Your task to perform on an android device: turn pop-ups on in chrome Image 0: 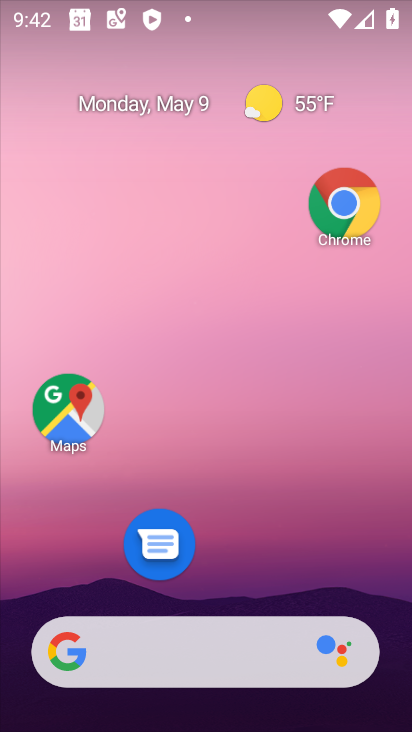
Step 0: click (330, 202)
Your task to perform on an android device: turn pop-ups on in chrome Image 1: 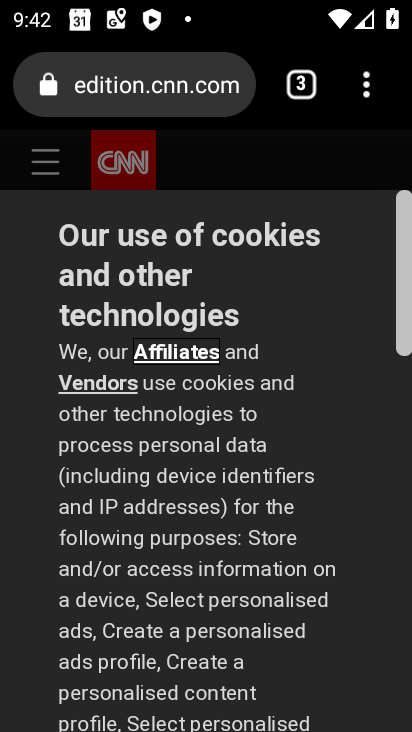
Step 1: drag from (364, 97) to (142, 581)
Your task to perform on an android device: turn pop-ups on in chrome Image 2: 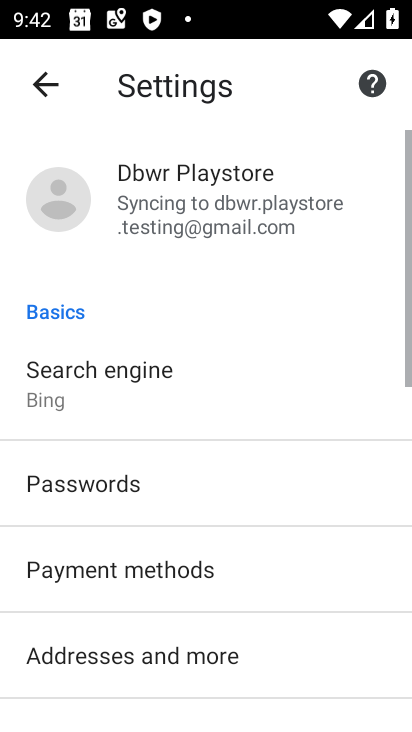
Step 2: drag from (247, 623) to (294, 242)
Your task to perform on an android device: turn pop-ups on in chrome Image 3: 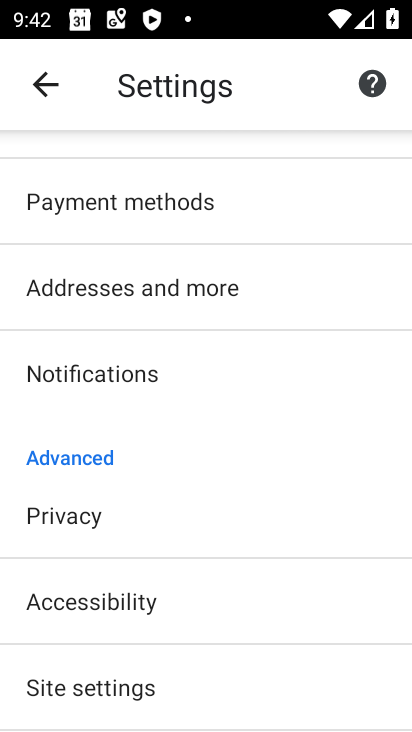
Step 3: click (157, 663)
Your task to perform on an android device: turn pop-ups on in chrome Image 4: 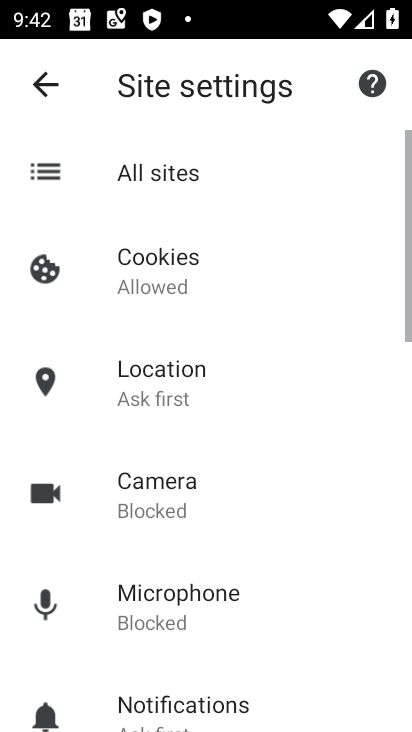
Step 4: drag from (163, 659) to (222, 391)
Your task to perform on an android device: turn pop-ups on in chrome Image 5: 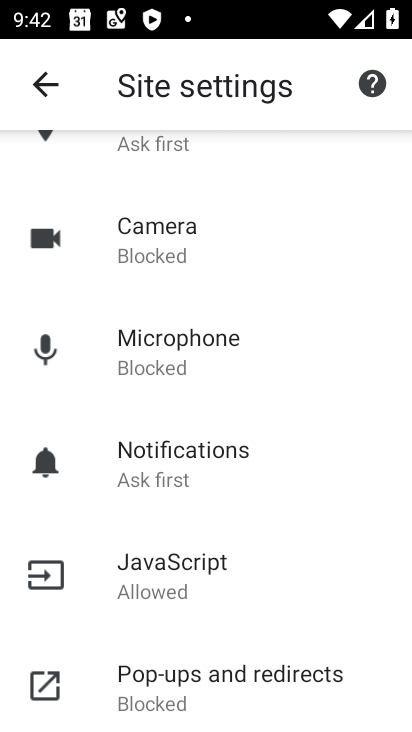
Step 5: click (148, 660)
Your task to perform on an android device: turn pop-ups on in chrome Image 6: 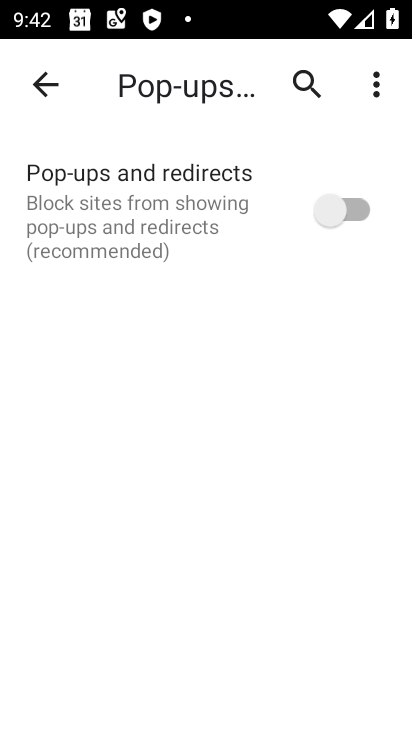
Step 6: click (347, 205)
Your task to perform on an android device: turn pop-ups on in chrome Image 7: 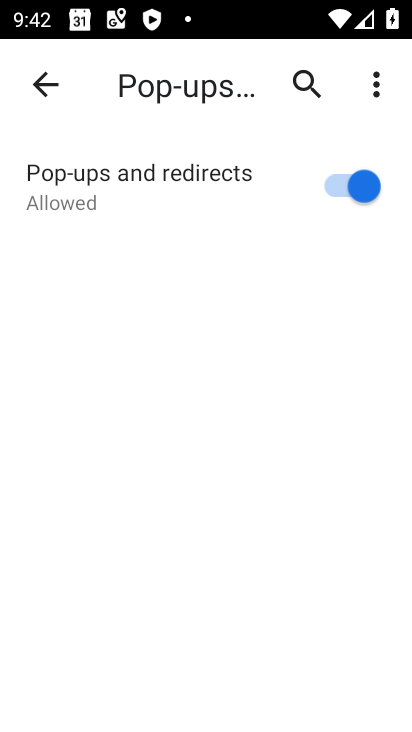
Step 7: task complete